Your task to perform on an android device: find photos in the google photos app Image 0: 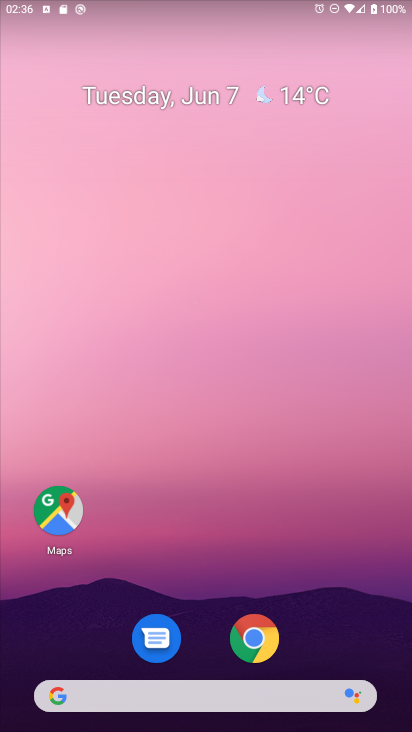
Step 0: drag from (250, 708) to (153, 92)
Your task to perform on an android device: find photos in the google photos app Image 1: 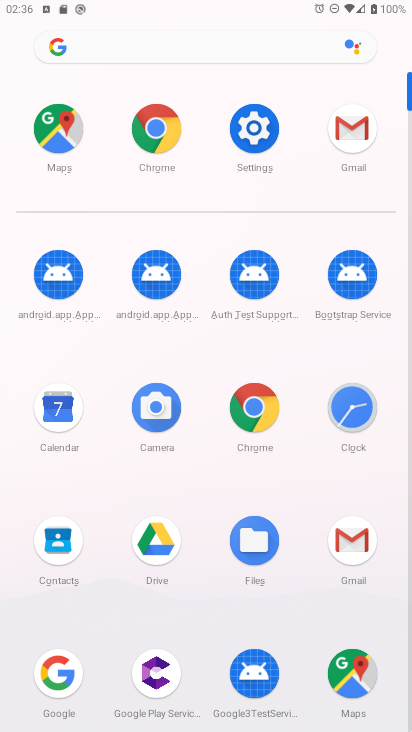
Step 1: drag from (210, 614) to (172, 425)
Your task to perform on an android device: find photos in the google photos app Image 2: 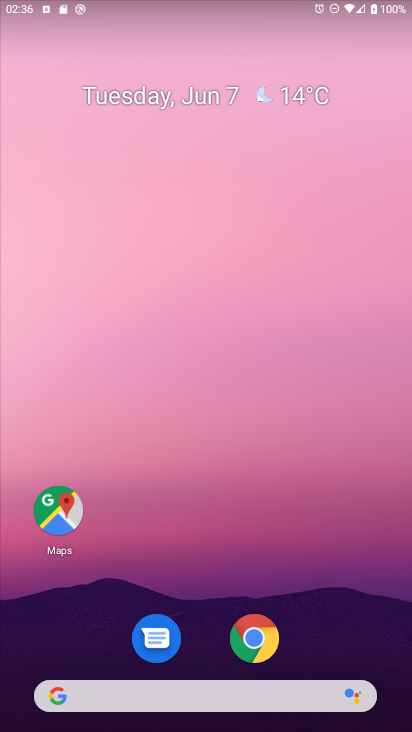
Step 2: drag from (201, 480) to (202, 383)
Your task to perform on an android device: find photos in the google photos app Image 3: 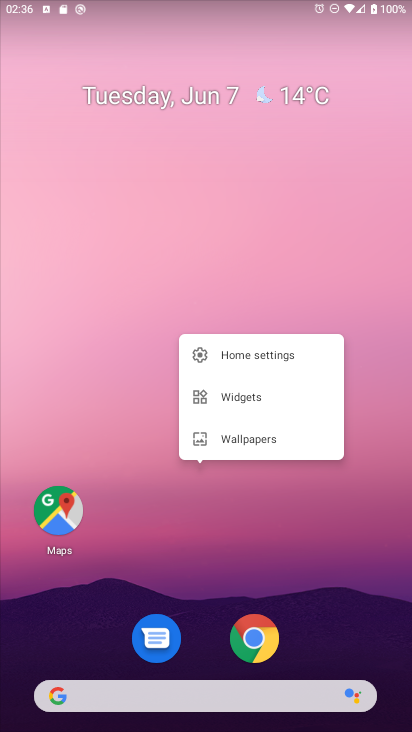
Step 3: drag from (267, 717) to (205, 189)
Your task to perform on an android device: find photos in the google photos app Image 4: 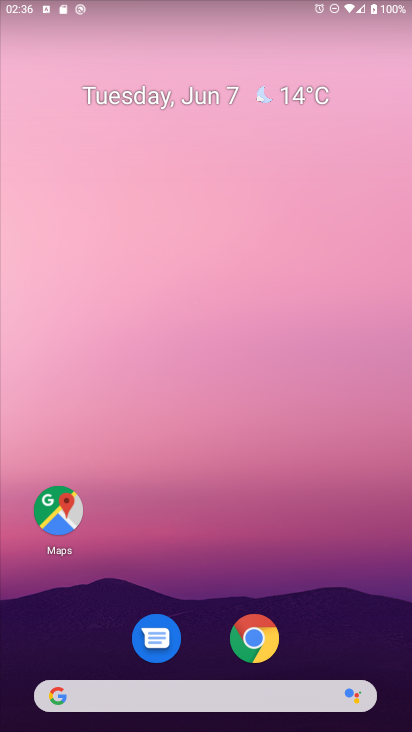
Step 4: drag from (190, 703) to (201, 217)
Your task to perform on an android device: find photos in the google photos app Image 5: 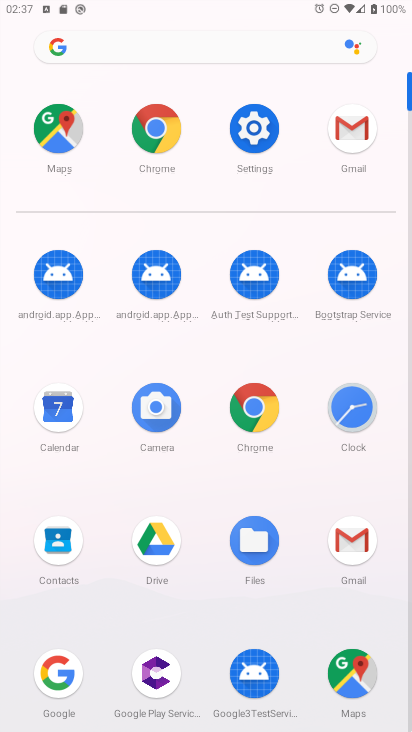
Step 5: drag from (191, 593) to (194, 338)
Your task to perform on an android device: find photos in the google photos app Image 6: 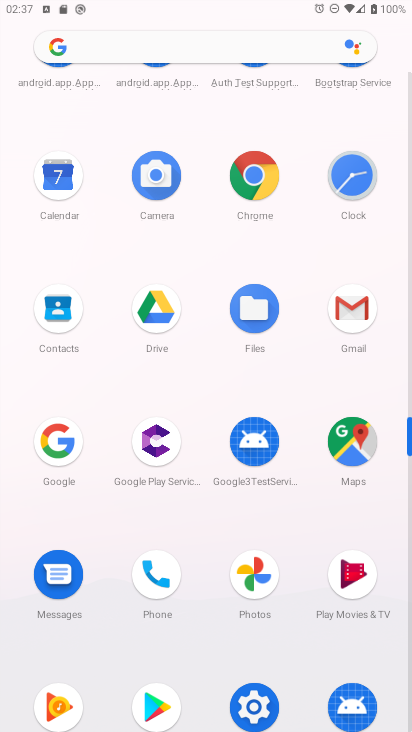
Step 6: click (264, 555)
Your task to perform on an android device: find photos in the google photos app Image 7: 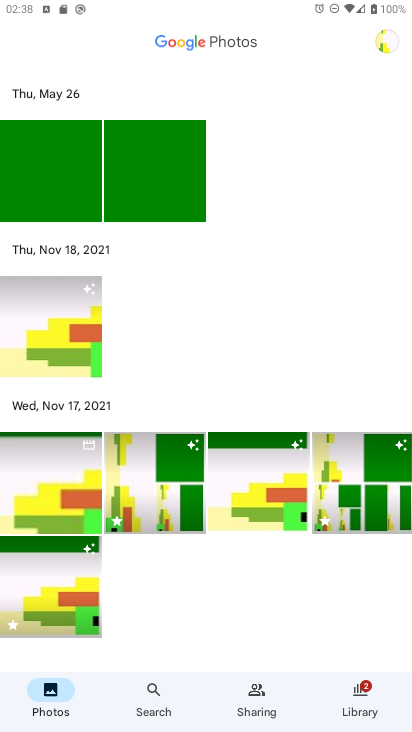
Step 7: task complete